Your task to perform on an android device: find which apps use the phone's location Image 0: 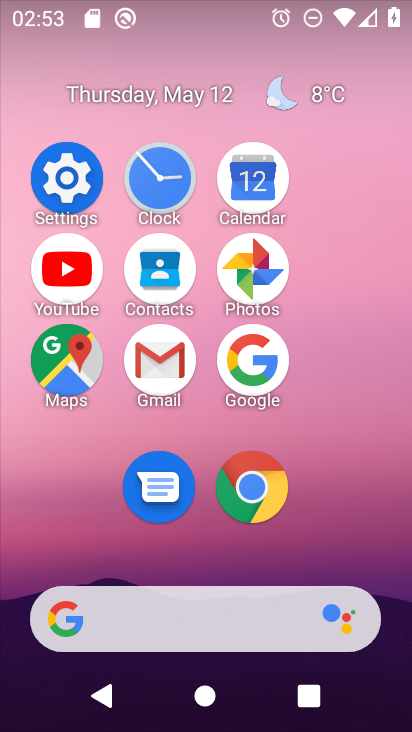
Step 0: click (76, 176)
Your task to perform on an android device: find which apps use the phone's location Image 1: 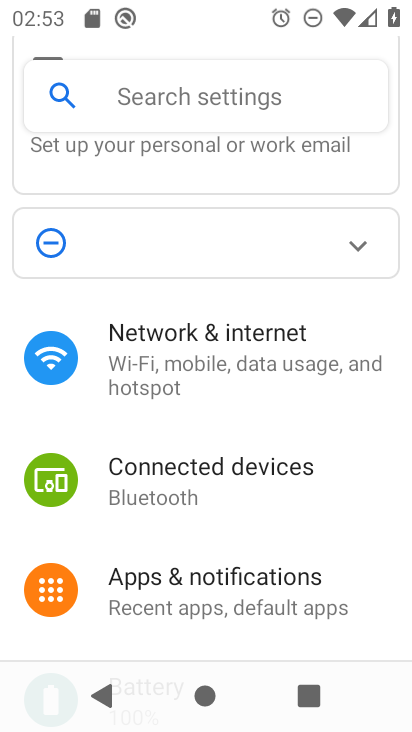
Step 1: drag from (304, 578) to (283, 209)
Your task to perform on an android device: find which apps use the phone's location Image 2: 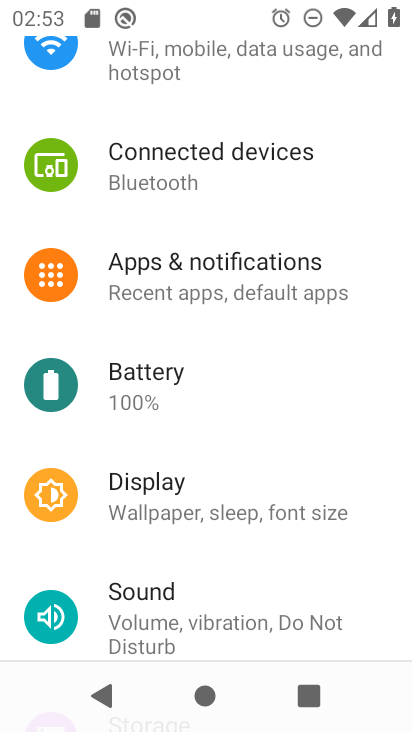
Step 2: drag from (213, 462) to (242, 131)
Your task to perform on an android device: find which apps use the phone's location Image 3: 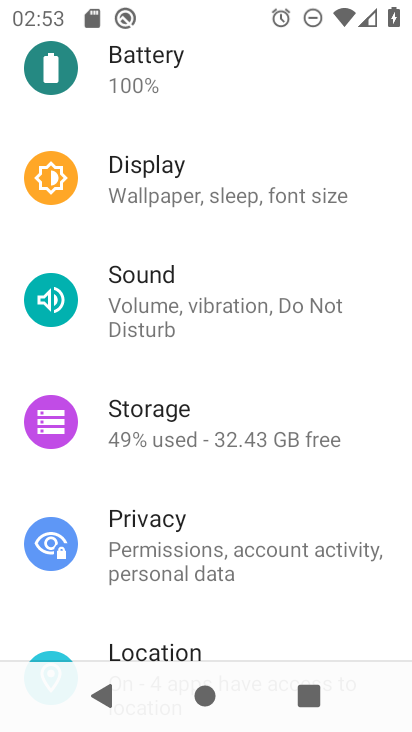
Step 3: click (169, 633)
Your task to perform on an android device: find which apps use the phone's location Image 4: 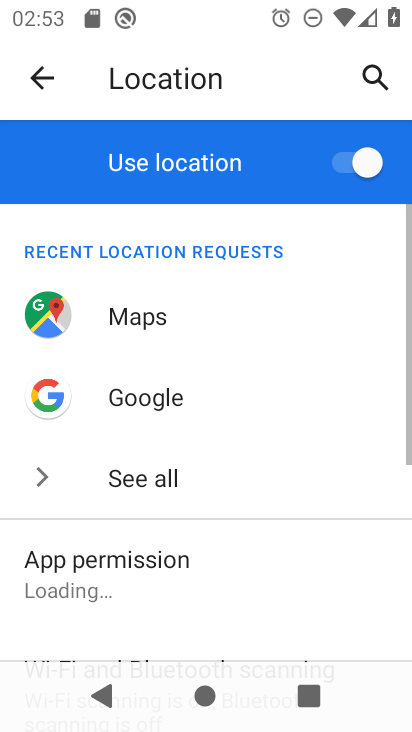
Step 4: task complete